Your task to perform on an android device: open a bookmark in the chrome app Image 0: 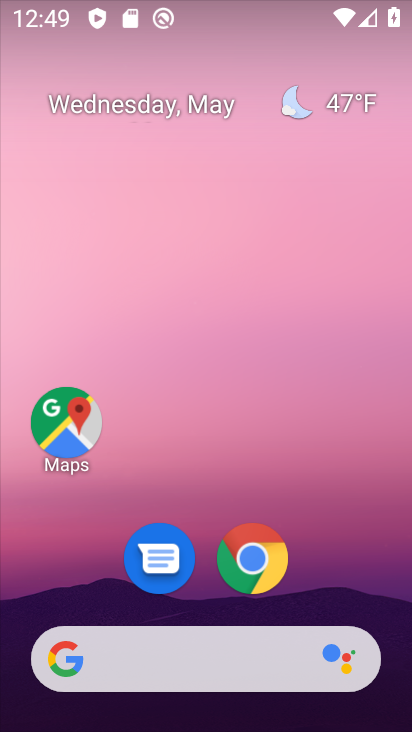
Step 0: click (263, 537)
Your task to perform on an android device: open a bookmark in the chrome app Image 1: 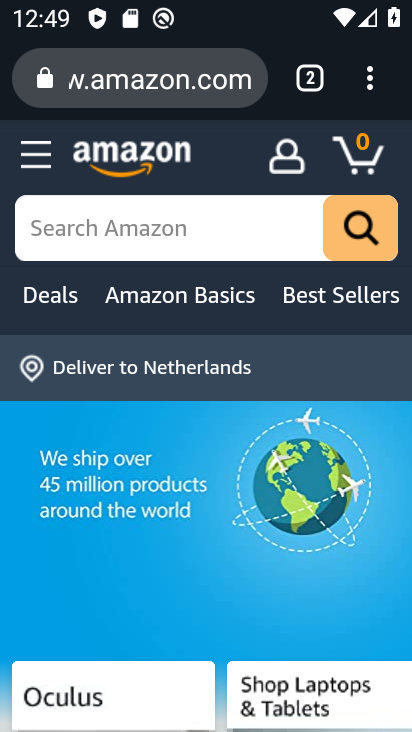
Step 1: click (372, 78)
Your task to perform on an android device: open a bookmark in the chrome app Image 2: 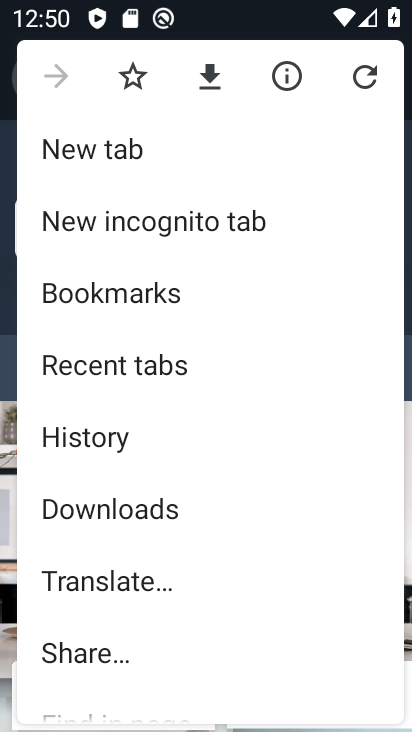
Step 2: click (102, 290)
Your task to perform on an android device: open a bookmark in the chrome app Image 3: 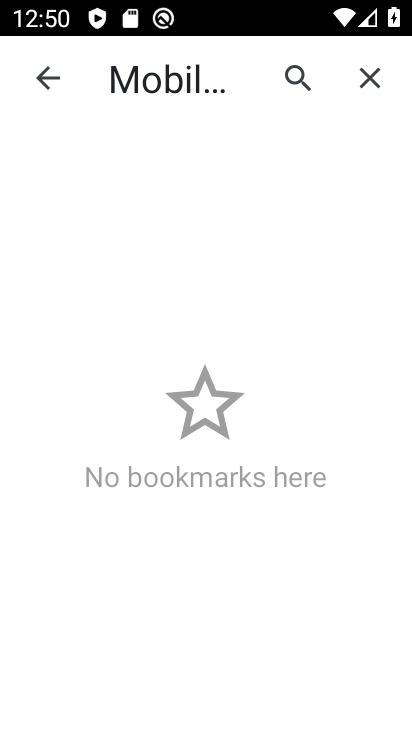
Step 3: task complete